Your task to perform on an android device: Open CNN.com Image 0: 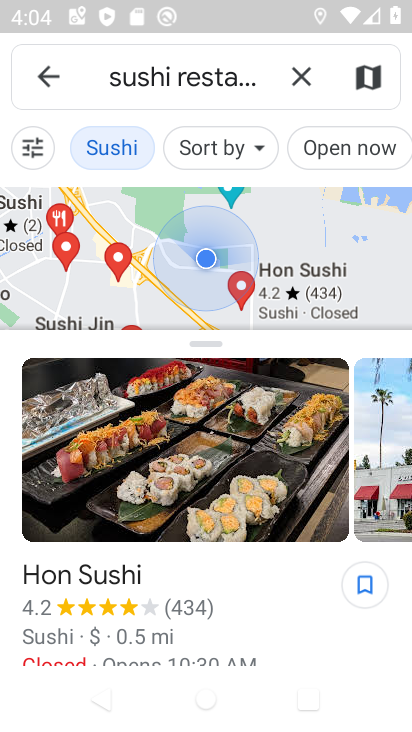
Step 0: press home button
Your task to perform on an android device: Open CNN.com Image 1: 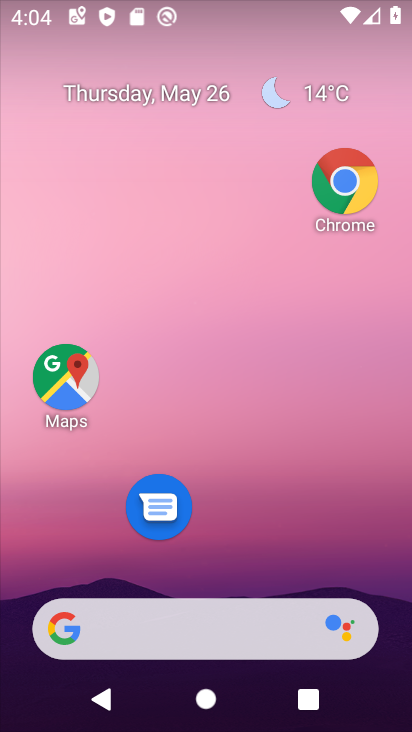
Step 1: drag from (278, 541) to (286, 111)
Your task to perform on an android device: Open CNN.com Image 2: 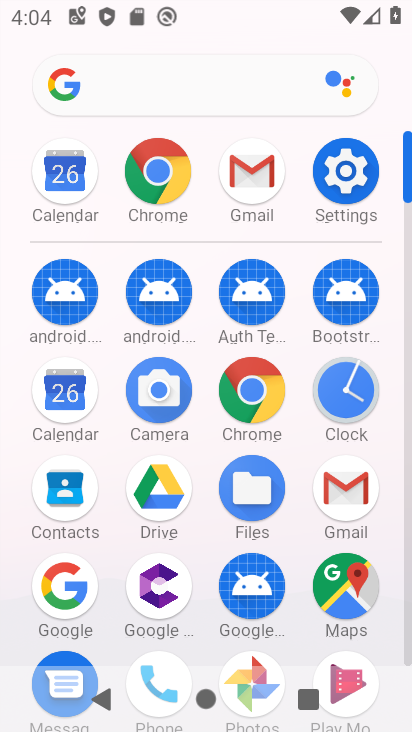
Step 2: click (248, 390)
Your task to perform on an android device: Open CNN.com Image 3: 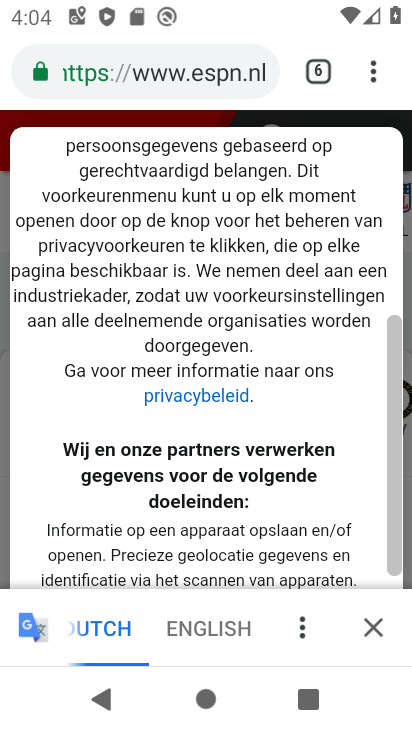
Step 3: click (200, 71)
Your task to perform on an android device: Open CNN.com Image 4: 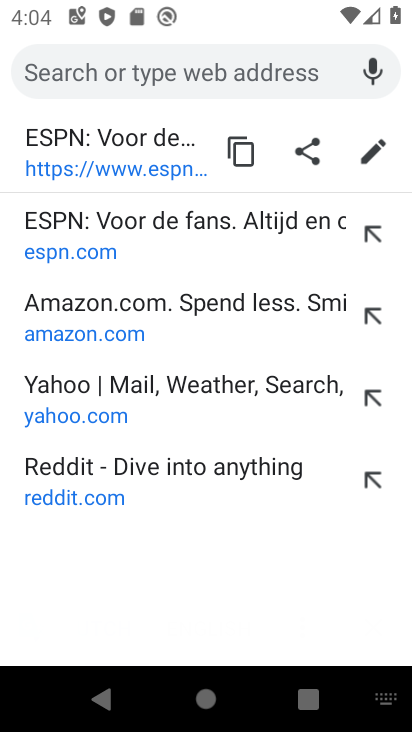
Step 4: type "CNN.com"
Your task to perform on an android device: Open CNN.com Image 5: 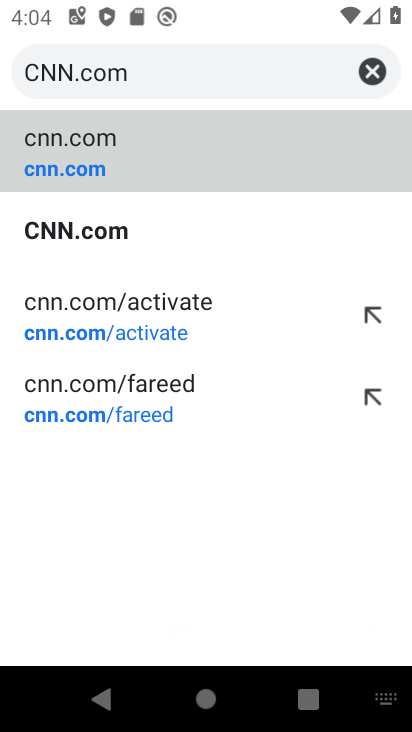
Step 5: click (50, 165)
Your task to perform on an android device: Open CNN.com Image 6: 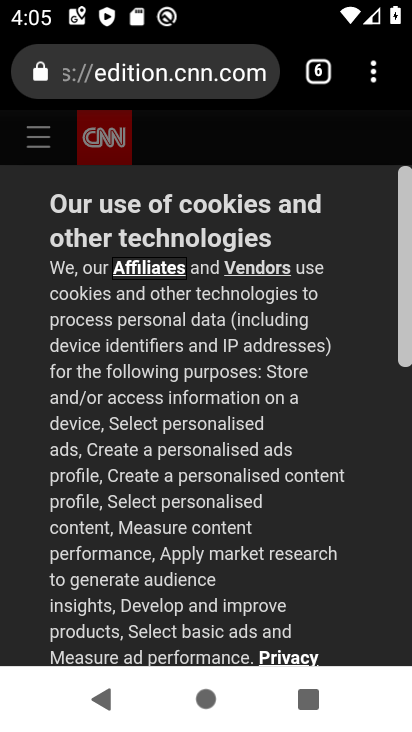
Step 6: task complete